Your task to perform on an android device: Open internet settings Image 0: 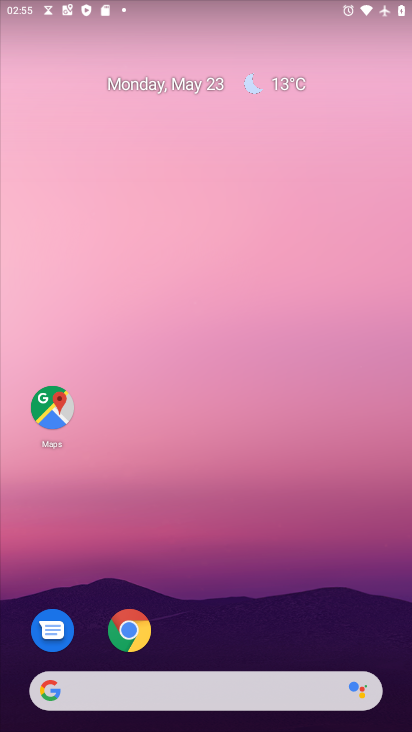
Step 0: drag from (279, 554) to (145, 56)
Your task to perform on an android device: Open internet settings Image 1: 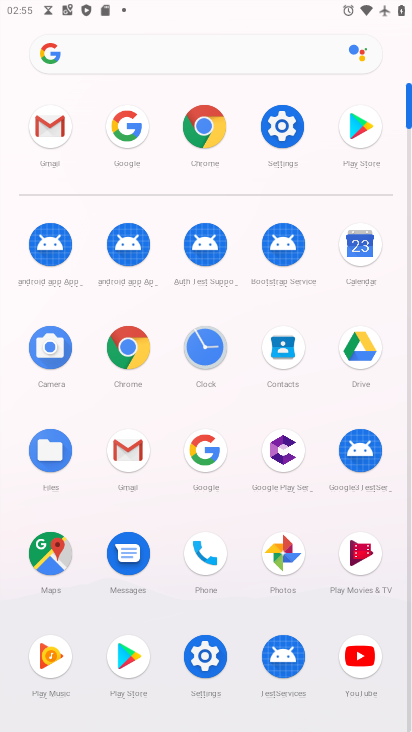
Step 1: click (288, 135)
Your task to perform on an android device: Open internet settings Image 2: 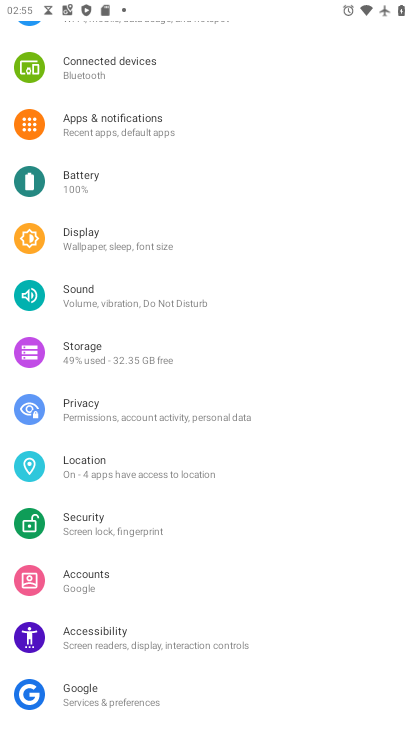
Step 2: drag from (200, 102) to (235, 647)
Your task to perform on an android device: Open internet settings Image 3: 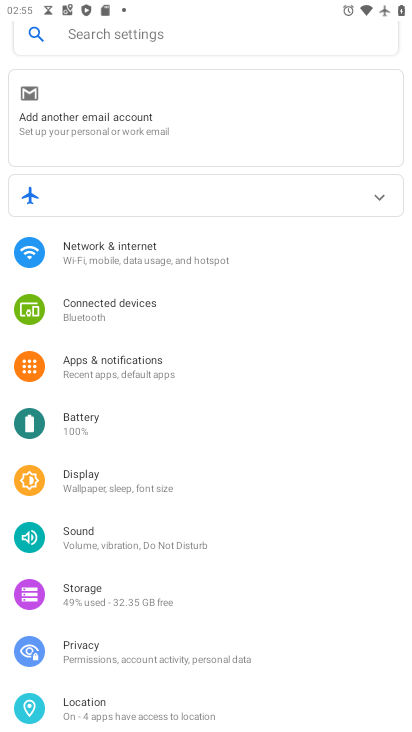
Step 3: click (165, 271)
Your task to perform on an android device: Open internet settings Image 4: 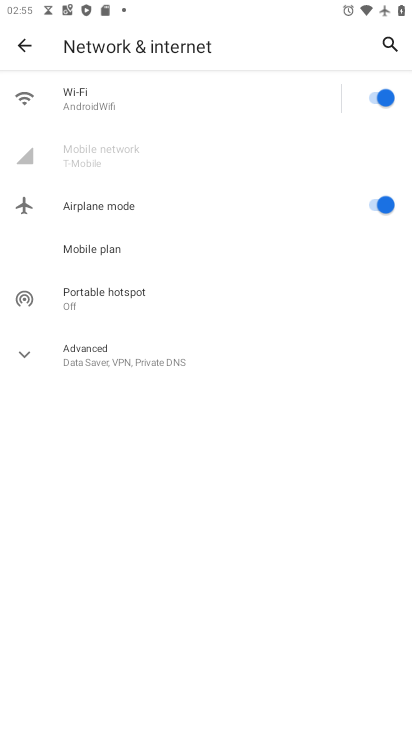
Step 4: task complete